Your task to perform on an android device: turn off location history Image 0: 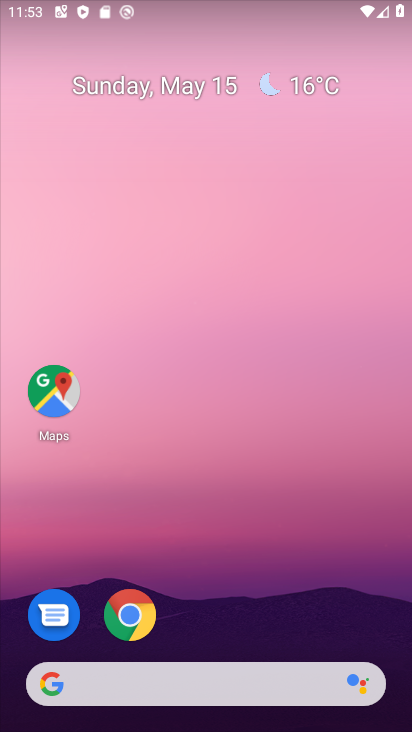
Step 0: drag from (208, 706) to (257, 148)
Your task to perform on an android device: turn off location history Image 1: 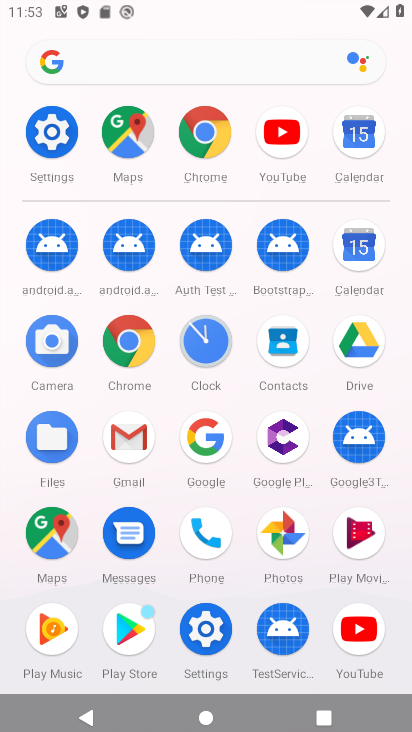
Step 1: click (36, 127)
Your task to perform on an android device: turn off location history Image 2: 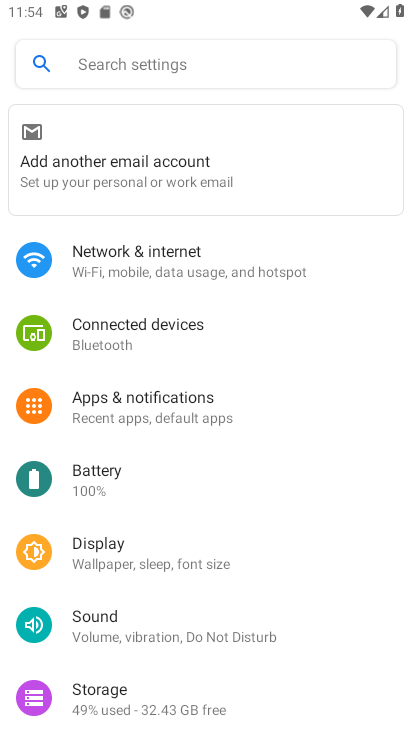
Step 2: drag from (163, 691) to (213, 290)
Your task to perform on an android device: turn off location history Image 3: 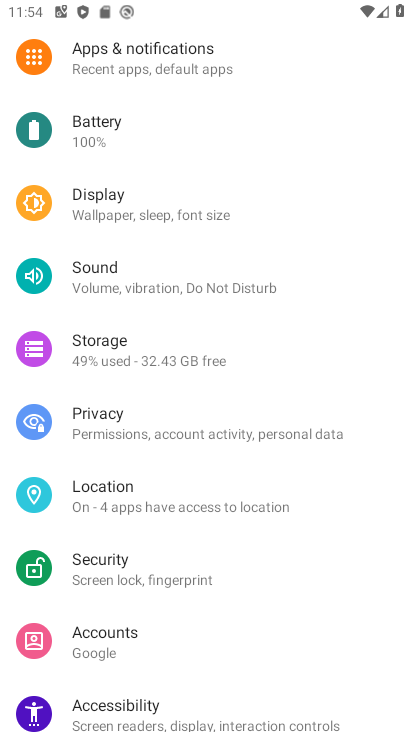
Step 3: click (147, 528)
Your task to perform on an android device: turn off location history Image 4: 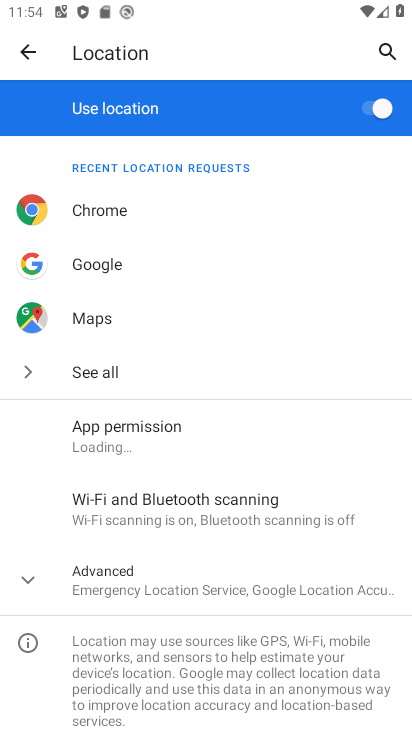
Step 4: drag from (125, 582) to (129, 456)
Your task to perform on an android device: turn off location history Image 5: 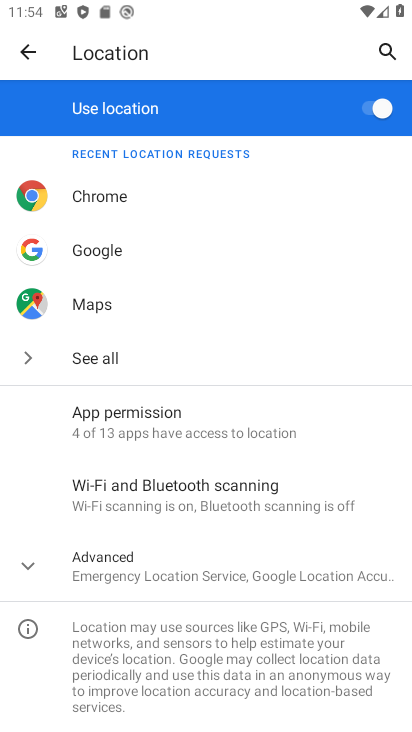
Step 5: click (166, 577)
Your task to perform on an android device: turn off location history Image 6: 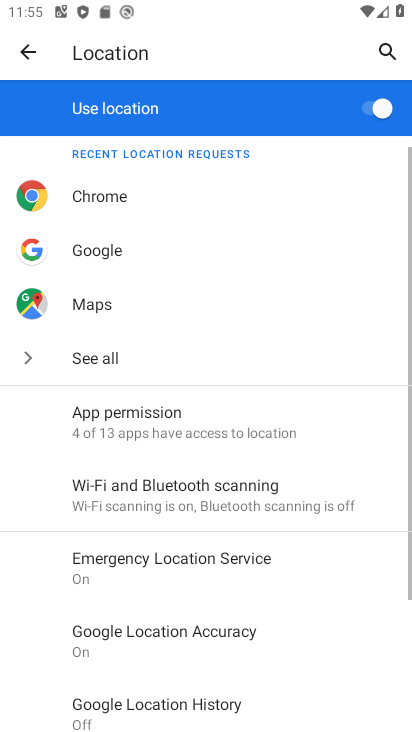
Step 6: drag from (166, 577) to (224, 262)
Your task to perform on an android device: turn off location history Image 7: 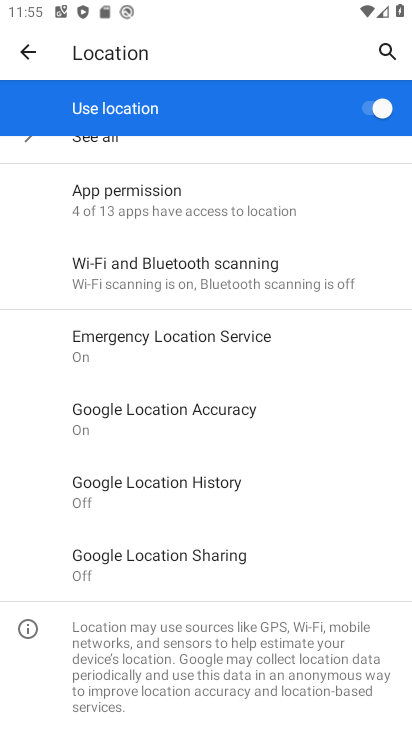
Step 7: click (194, 482)
Your task to perform on an android device: turn off location history Image 8: 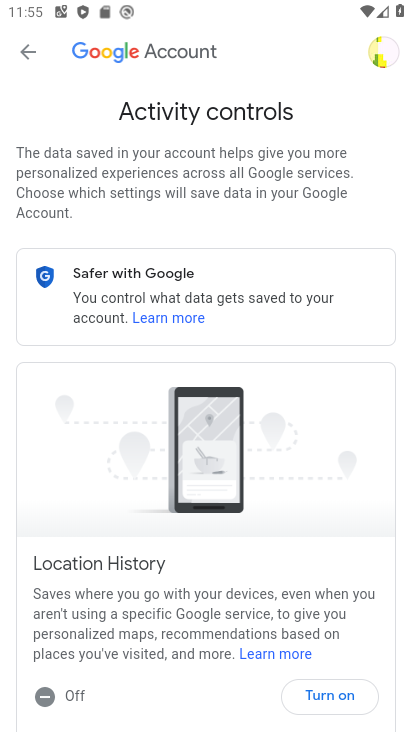
Step 8: task complete